Your task to perform on an android device: Go to Google maps Image 0: 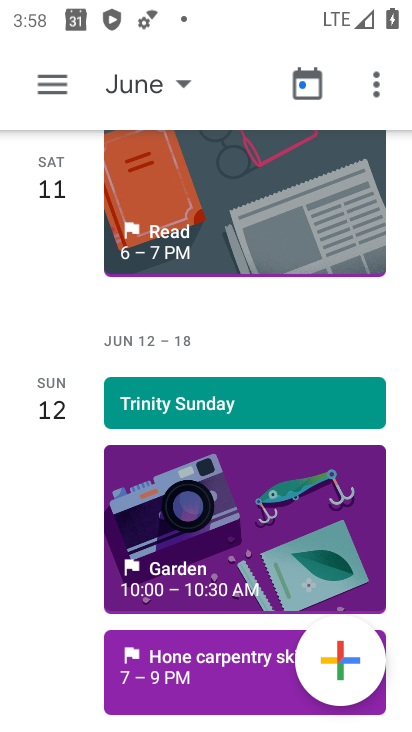
Step 0: press home button
Your task to perform on an android device: Go to Google maps Image 1: 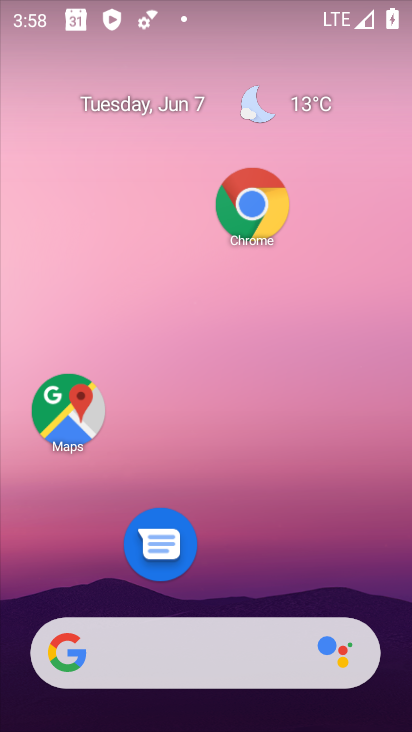
Step 1: click (66, 403)
Your task to perform on an android device: Go to Google maps Image 2: 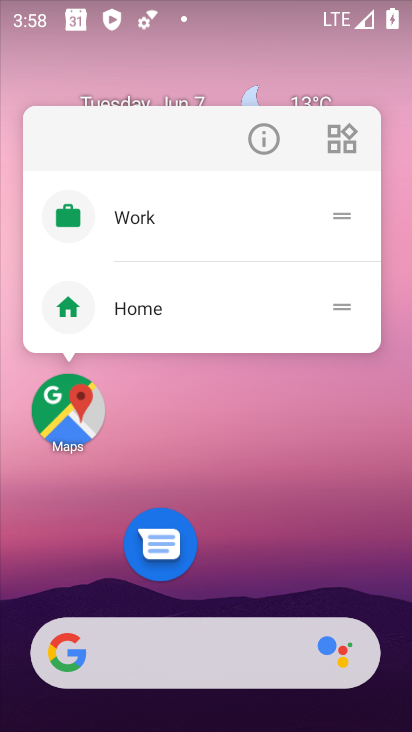
Step 2: click (66, 403)
Your task to perform on an android device: Go to Google maps Image 3: 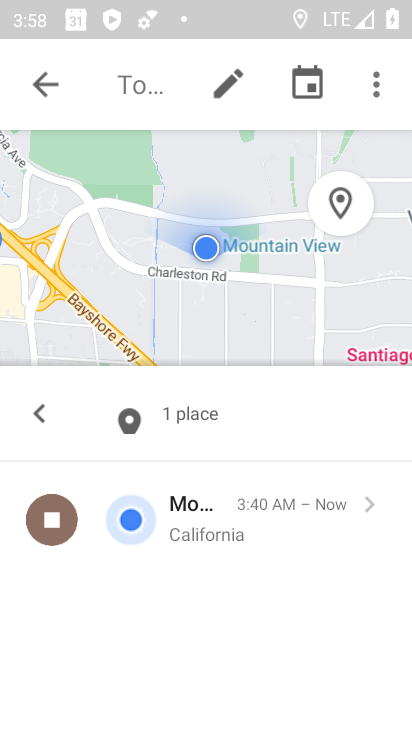
Step 3: click (46, 77)
Your task to perform on an android device: Go to Google maps Image 4: 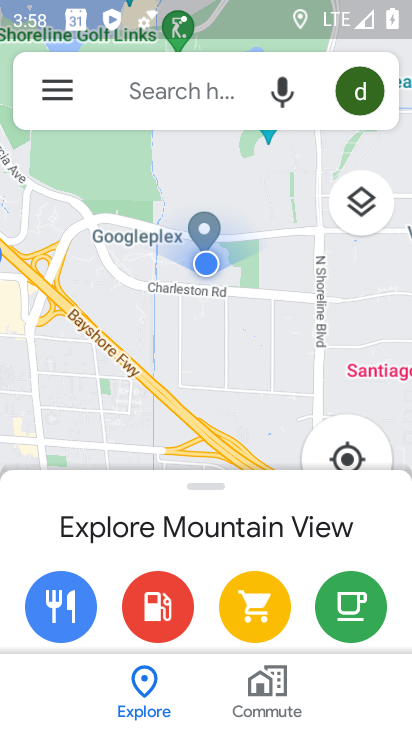
Step 4: task complete